Your task to perform on an android device: What's the weather going to be this weekend? Image 0: 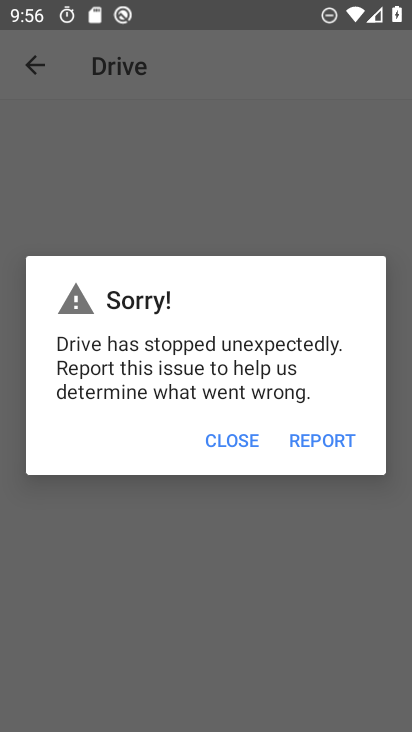
Step 0: press home button
Your task to perform on an android device: What's the weather going to be this weekend? Image 1: 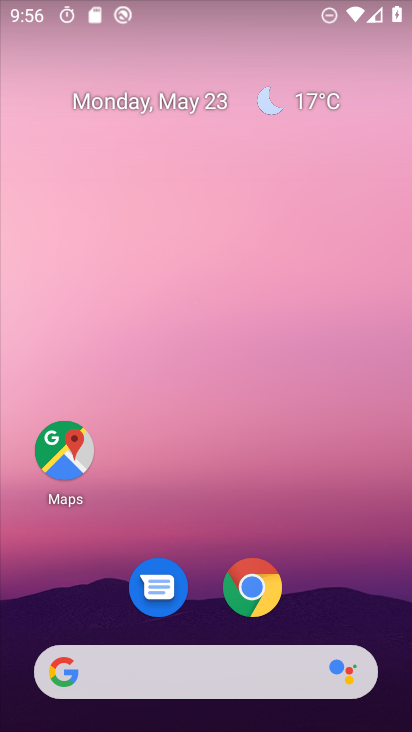
Step 1: click (287, 101)
Your task to perform on an android device: What's the weather going to be this weekend? Image 2: 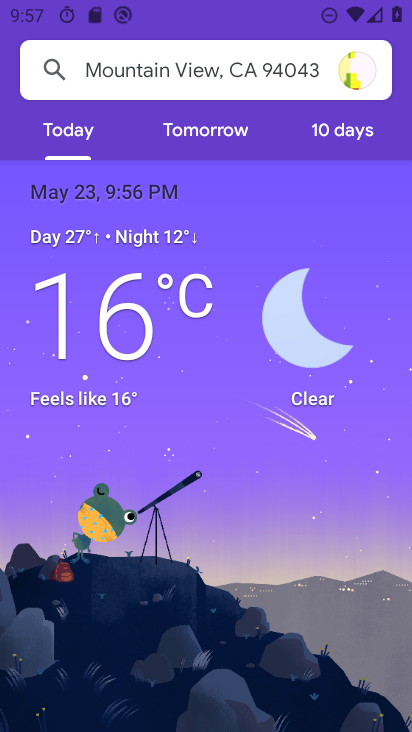
Step 2: click (328, 135)
Your task to perform on an android device: What's the weather going to be this weekend? Image 3: 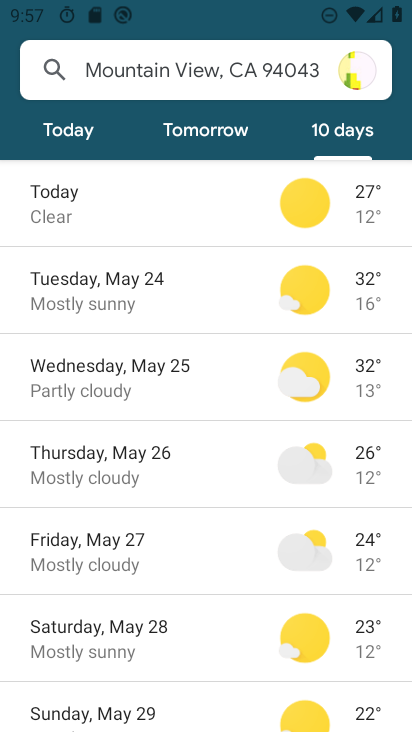
Step 3: task complete